Your task to perform on an android device: turn on priority inbox in the gmail app Image 0: 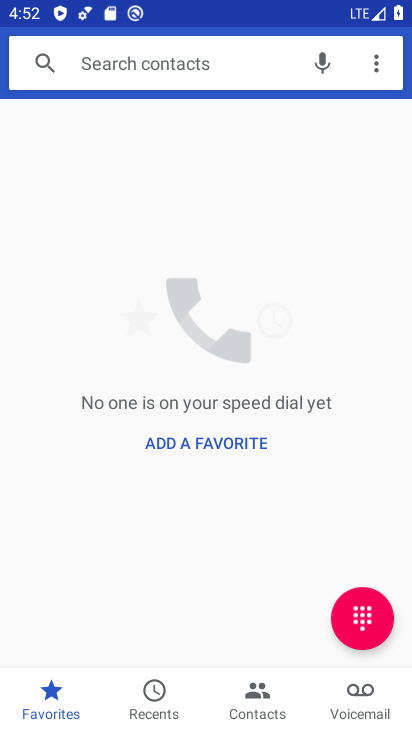
Step 0: press home button
Your task to perform on an android device: turn on priority inbox in the gmail app Image 1: 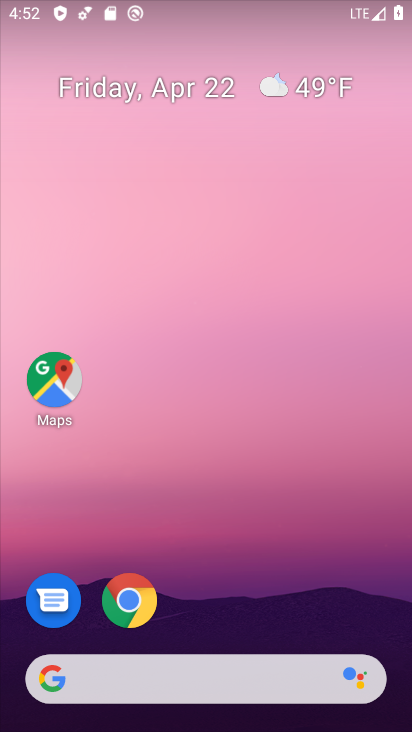
Step 1: drag from (242, 603) to (177, 59)
Your task to perform on an android device: turn on priority inbox in the gmail app Image 2: 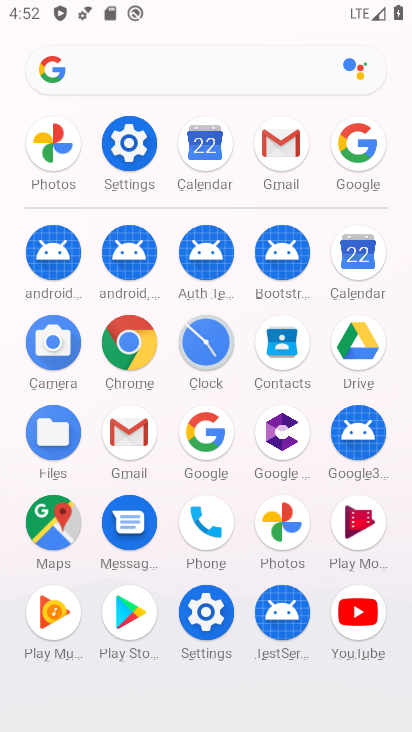
Step 2: click (277, 144)
Your task to perform on an android device: turn on priority inbox in the gmail app Image 3: 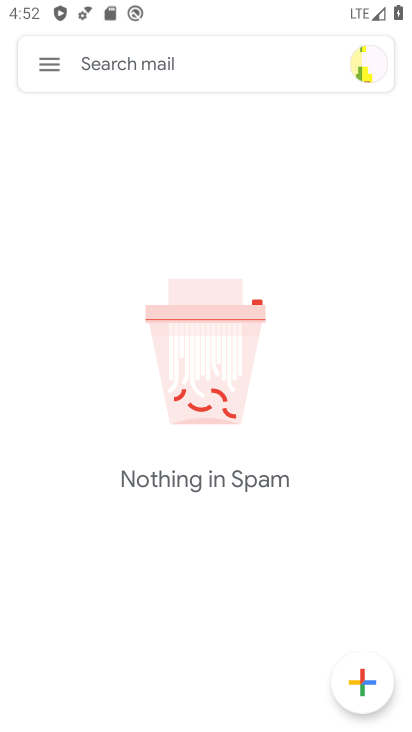
Step 3: click (49, 62)
Your task to perform on an android device: turn on priority inbox in the gmail app Image 4: 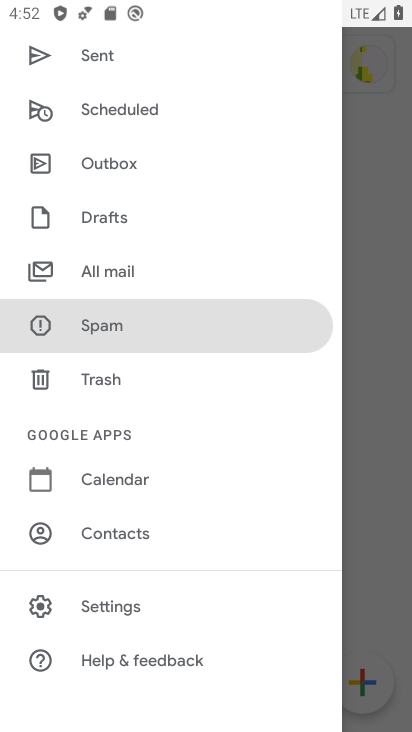
Step 4: click (110, 602)
Your task to perform on an android device: turn on priority inbox in the gmail app Image 5: 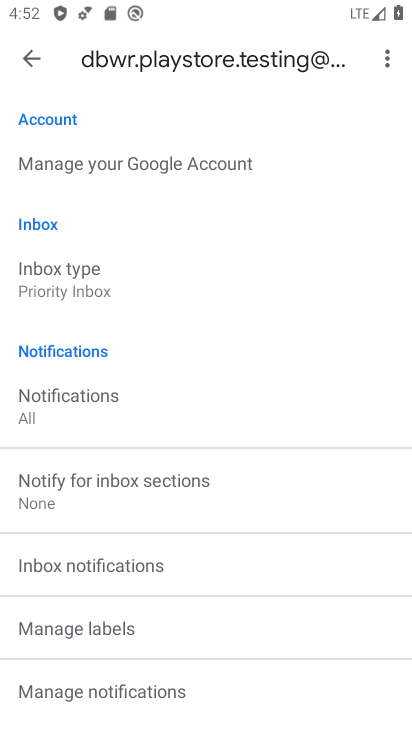
Step 5: click (72, 275)
Your task to perform on an android device: turn on priority inbox in the gmail app Image 6: 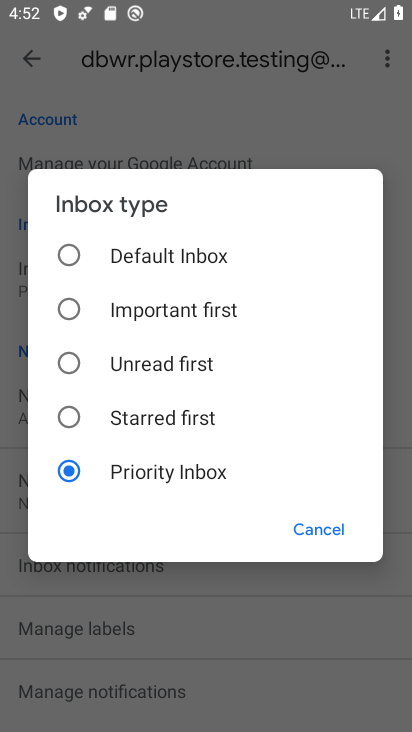
Step 6: click (67, 477)
Your task to perform on an android device: turn on priority inbox in the gmail app Image 7: 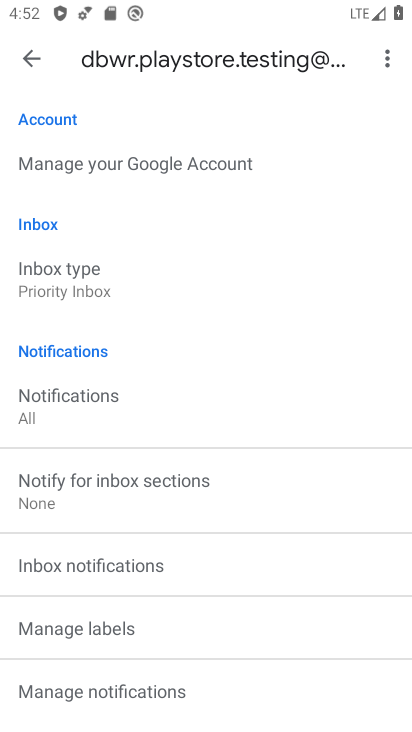
Step 7: task complete